Your task to perform on an android device: Go to ESPN.com Image 0: 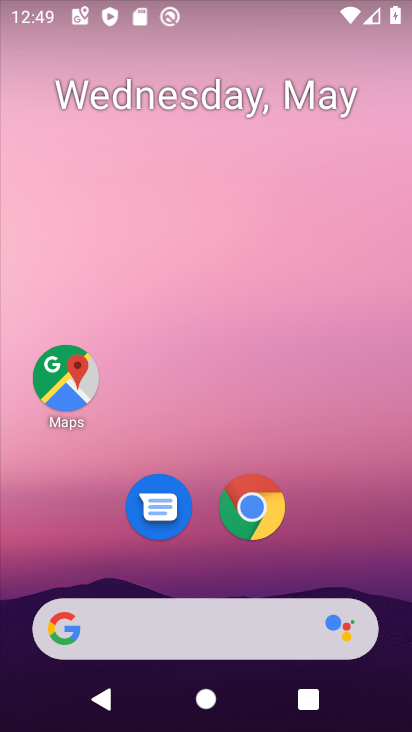
Step 0: click (249, 508)
Your task to perform on an android device: Go to ESPN.com Image 1: 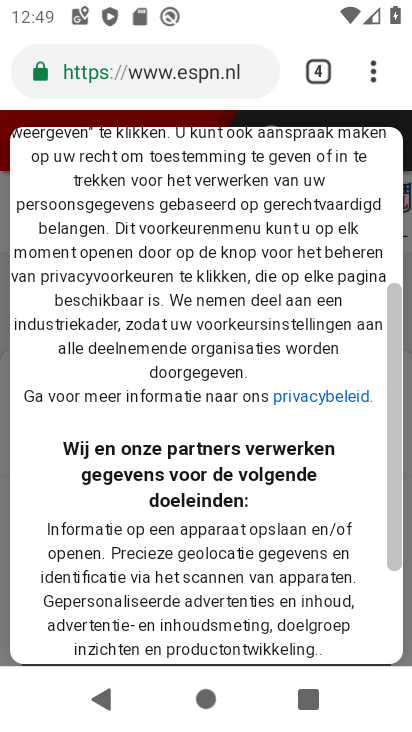
Step 1: click (369, 51)
Your task to perform on an android device: Go to ESPN.com Image 2: 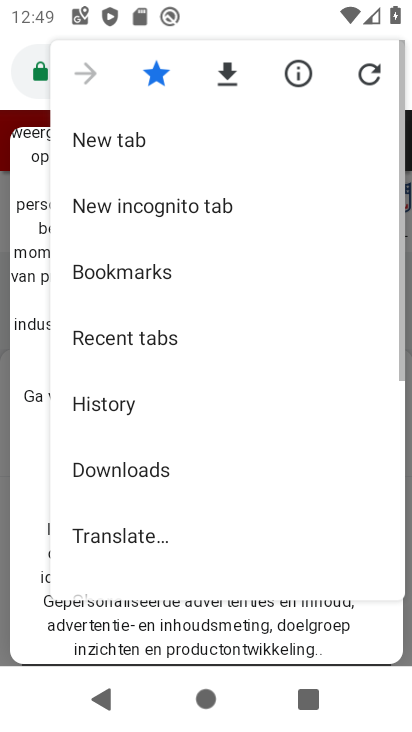
Step 2: click (179, 147)
Your task to perform on an android device: Go to ESPN.com Image 3: 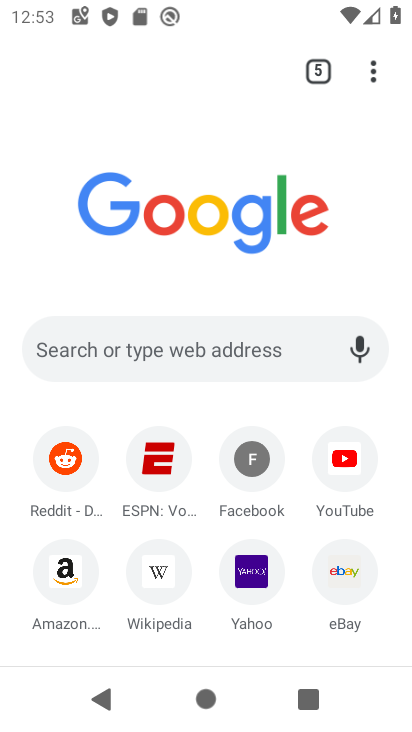
Step 3: click (150, 461)
Your task to perform on an android device: Go to ESPN.com Image 4: 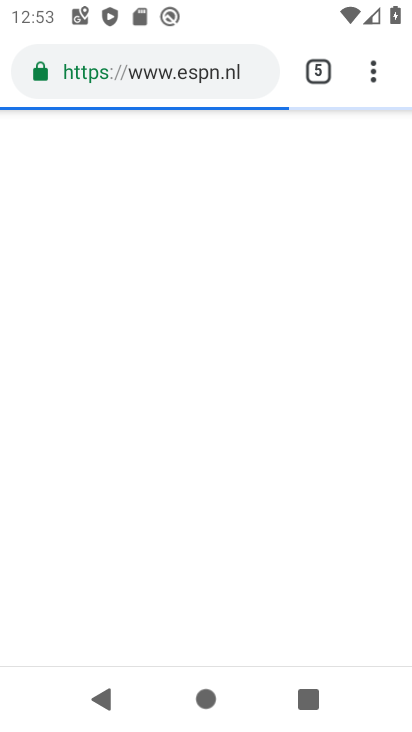
Step 4: task complete